Your task to perform on an android device: Go to Yahoo.com Image 0: 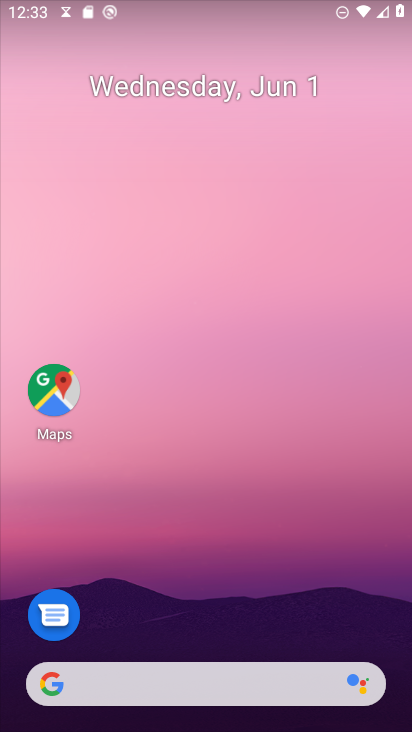
Step 0: drag from (185, 630) to (284, 83)
Your task to perform on an android device: Go to Yahoo.com Image 1: 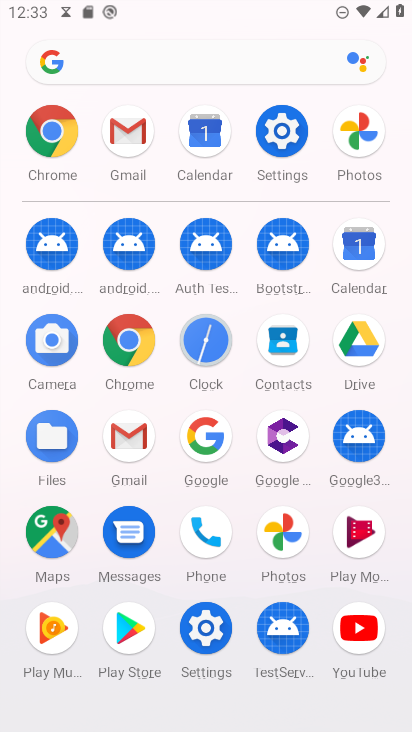
Step 1: click (141, 348)
Your task to perform on an android device: Go to Yahoo.com Image 2: 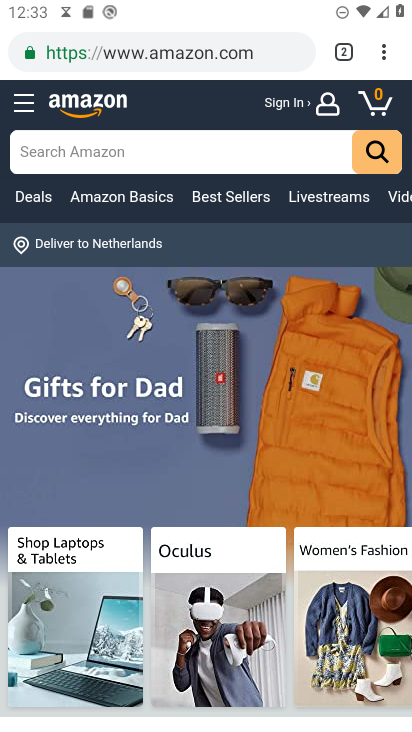
Step 2: click (261, 45)
Your task to perform on an android device: Go to Yahoo.com Image 3: 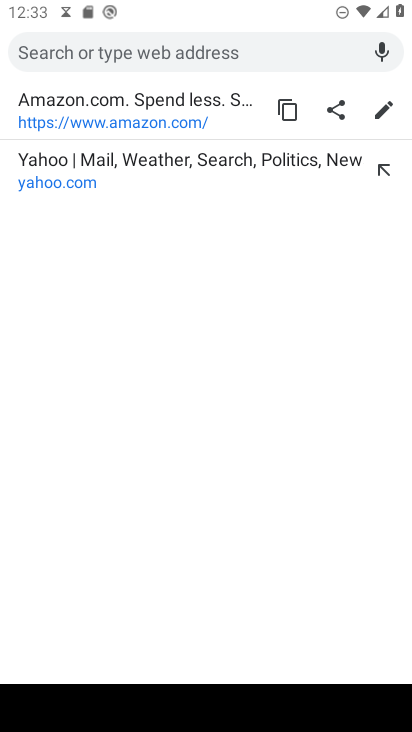
Step 3: type "yahoo.com"
Your task to perform on an android device: Go to Yahoo.com Image 4: 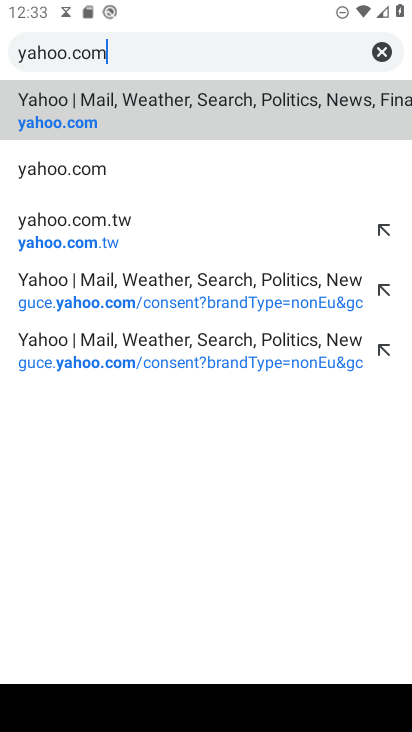
Step 4: click (88, 174)
Your task to perform on an android device: Go to Yahoo.com Image 5: 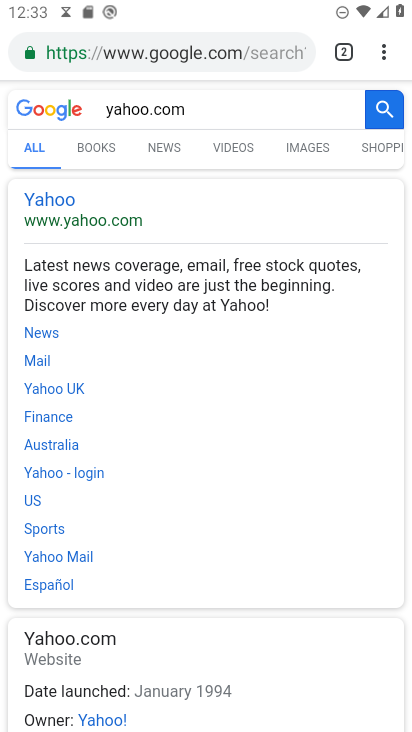
Step 5: click (65, 204)
Your task to perform on an android device: Go to Yahoo.com Image 6: 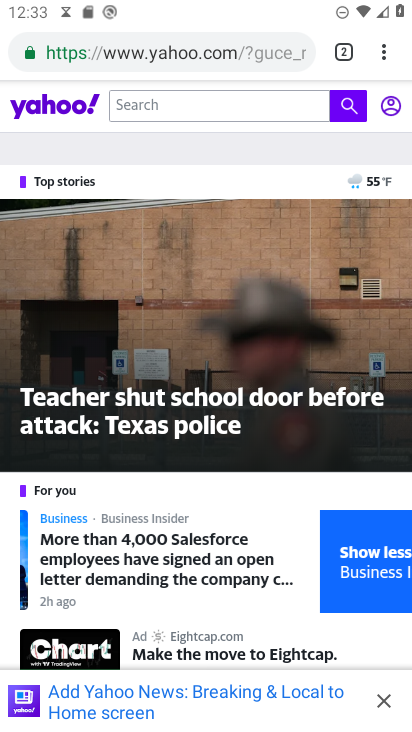
Step 6: task complete